Your task to perform on an android device: Open eBay Image 0: 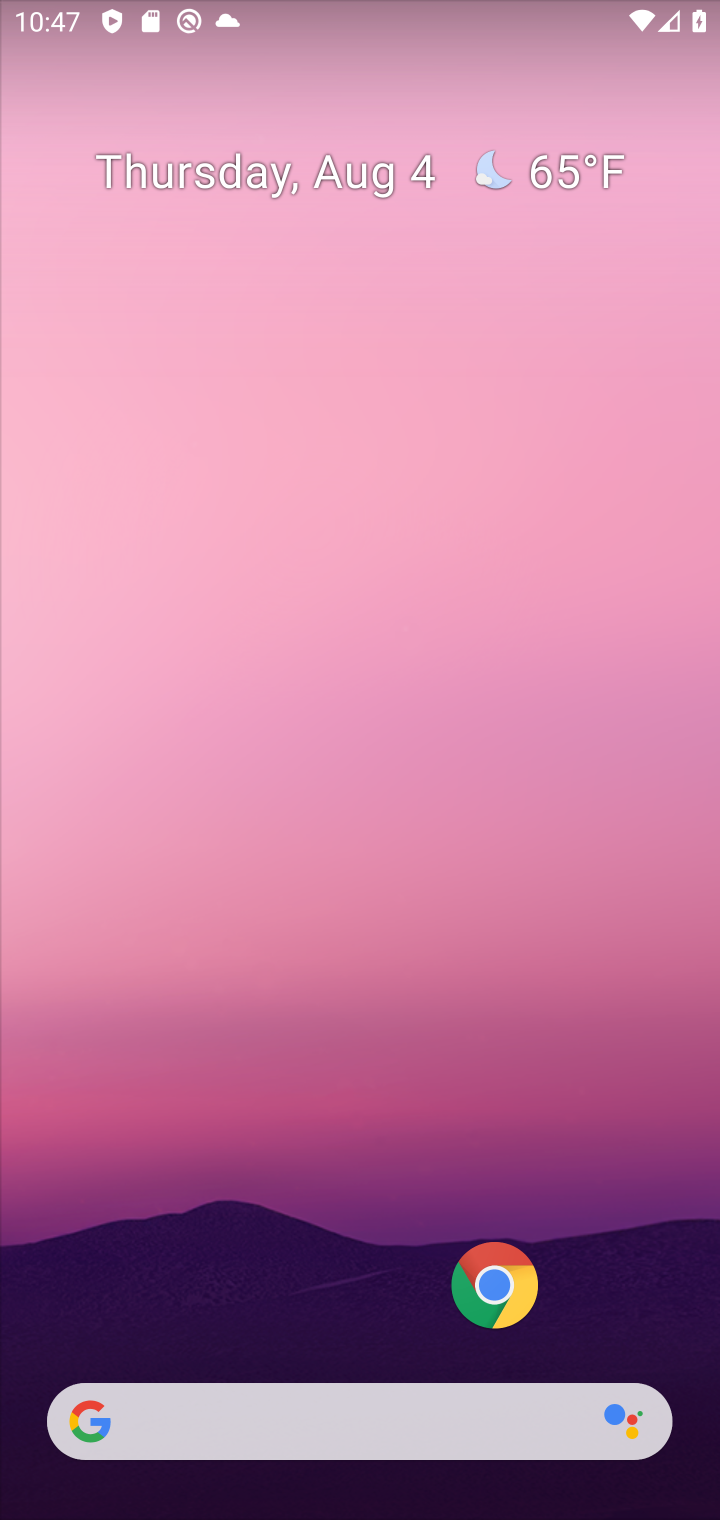
Step 0: drag from (387, 1314) to (431, 32)
Your task to perform on an android device: Open eBay Image 1: 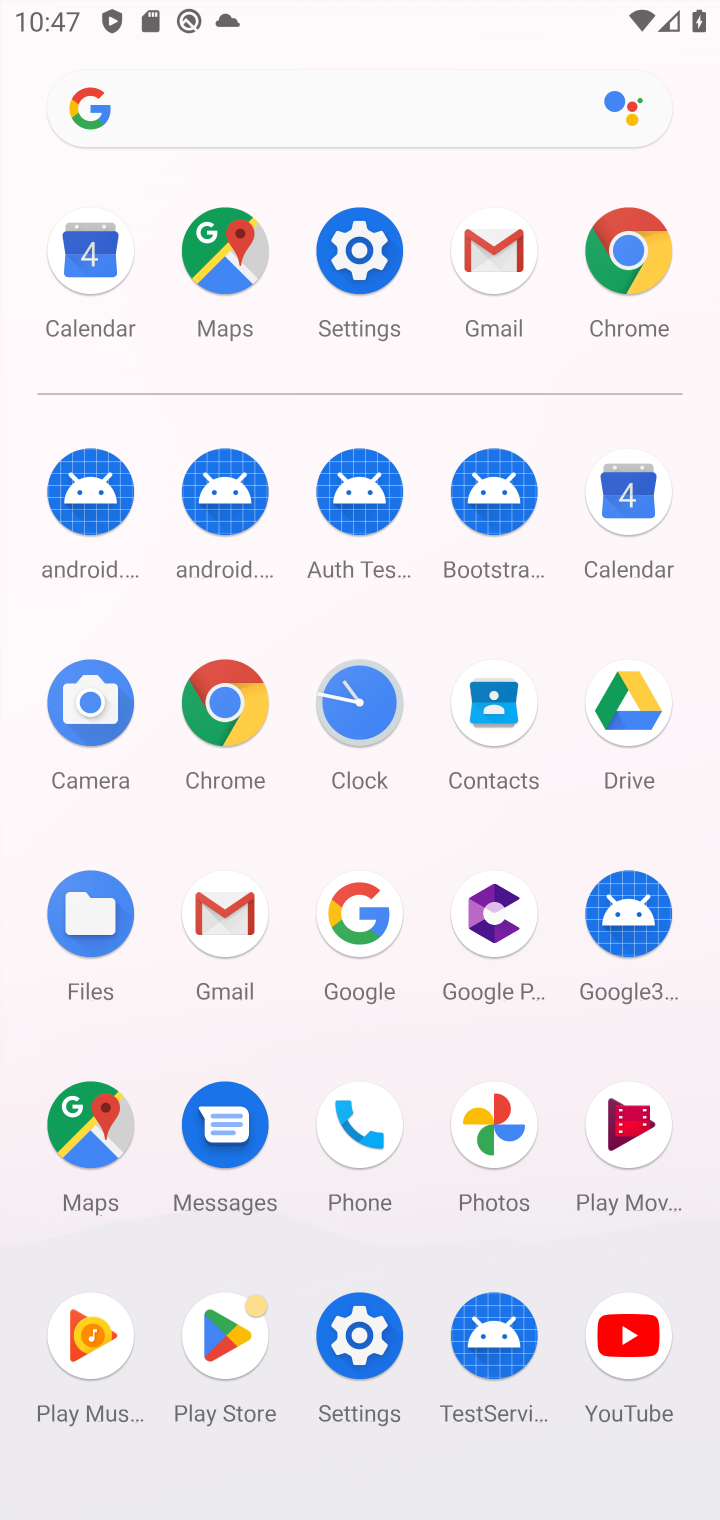
Step 1: click (632, 238)
Your task to perform on an android device: Open eBay Image 2: 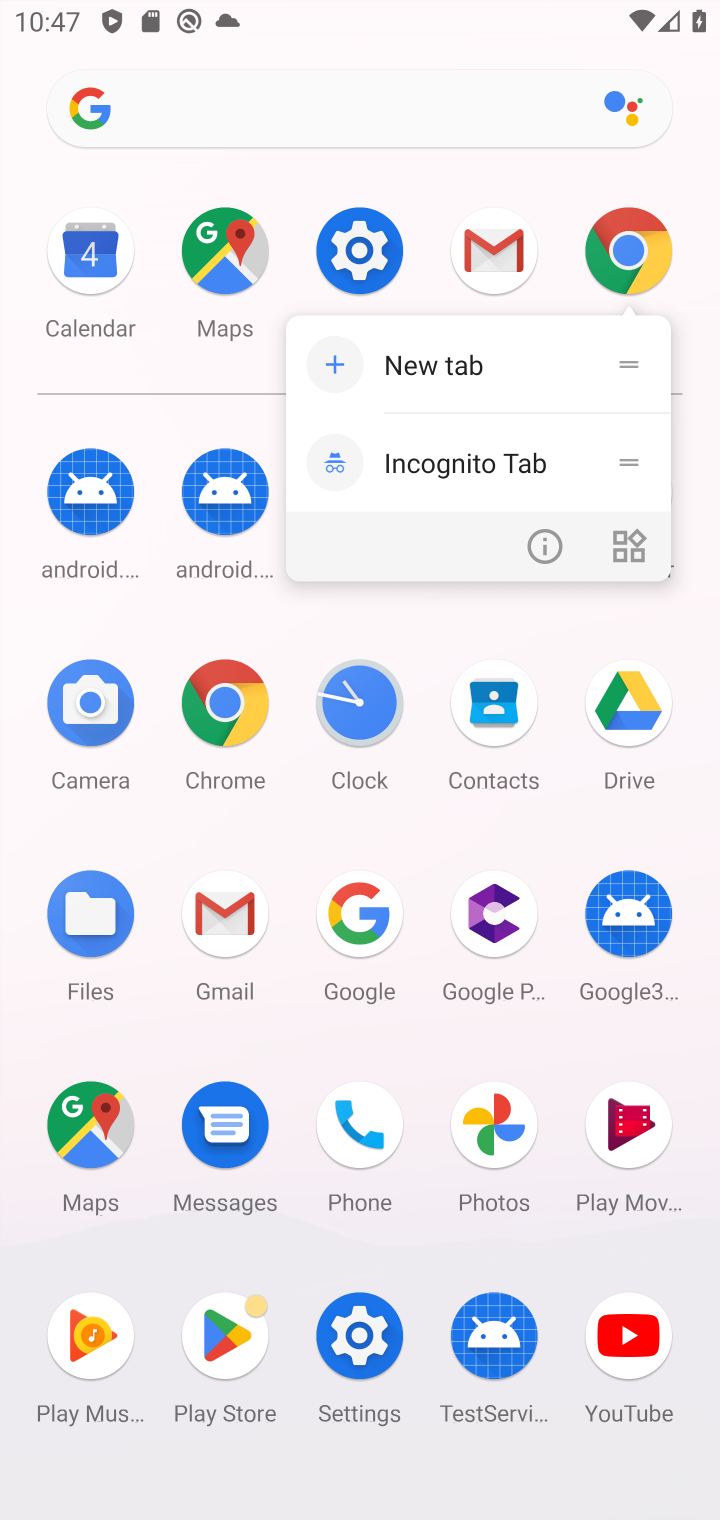
Step 2: click (612, 216)
Your task to perform on an android device: Open eBay Image 3: 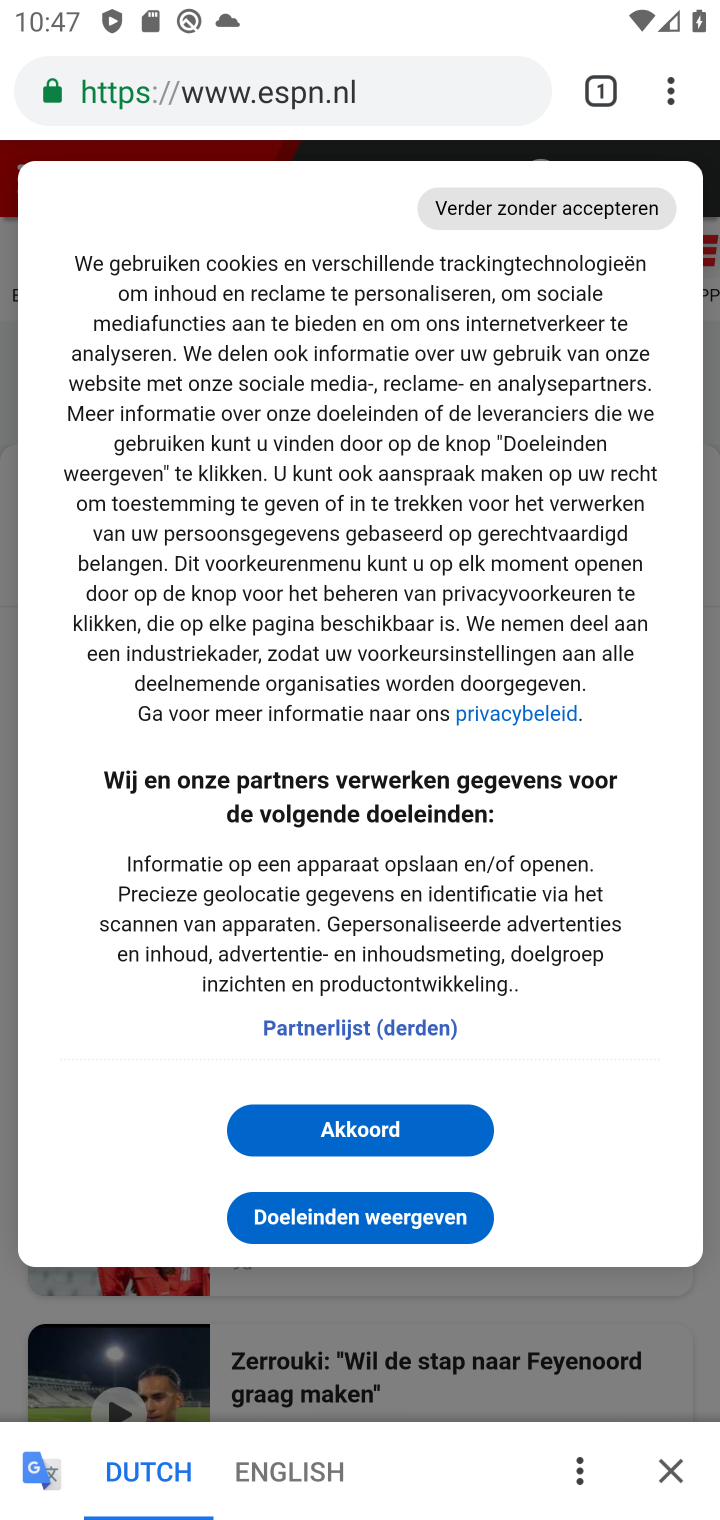
Step 3: click (224, 80)
Your task to perform on an android device: Open eBay Image 4: 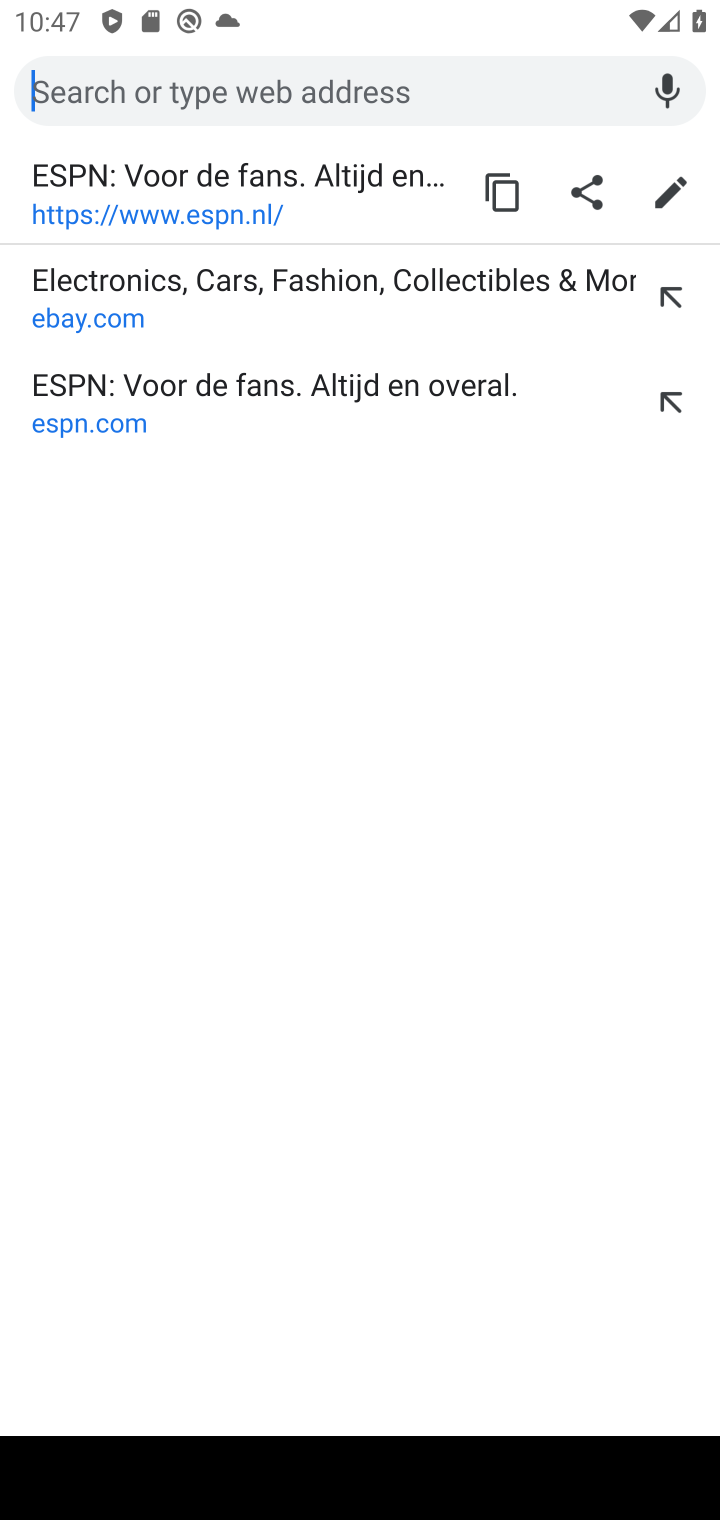
Step 4: type " eBay"
Your task to perform on an android device: Open eBay Image 5: 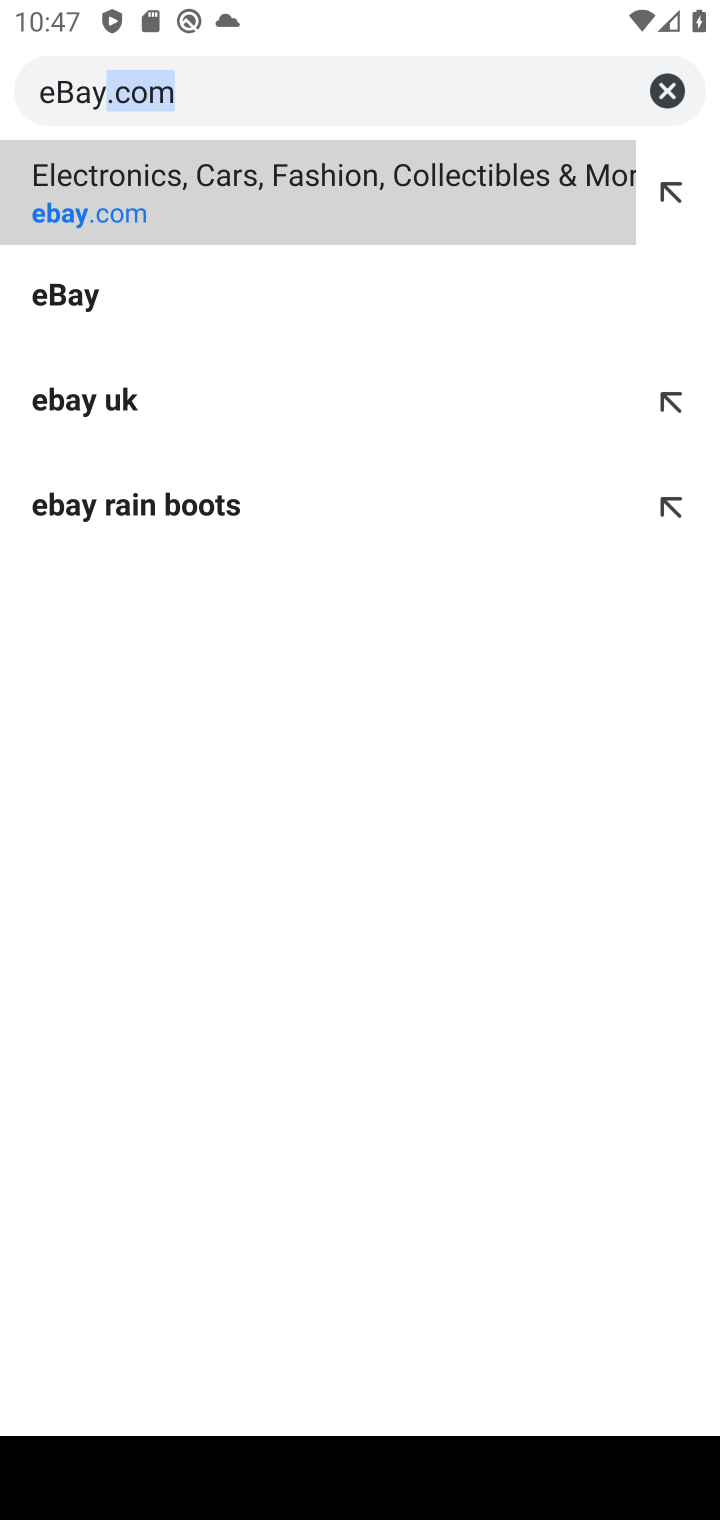
Step 5: click (98, 212)
Your task to perform on an android device: Open eBay Image 6: 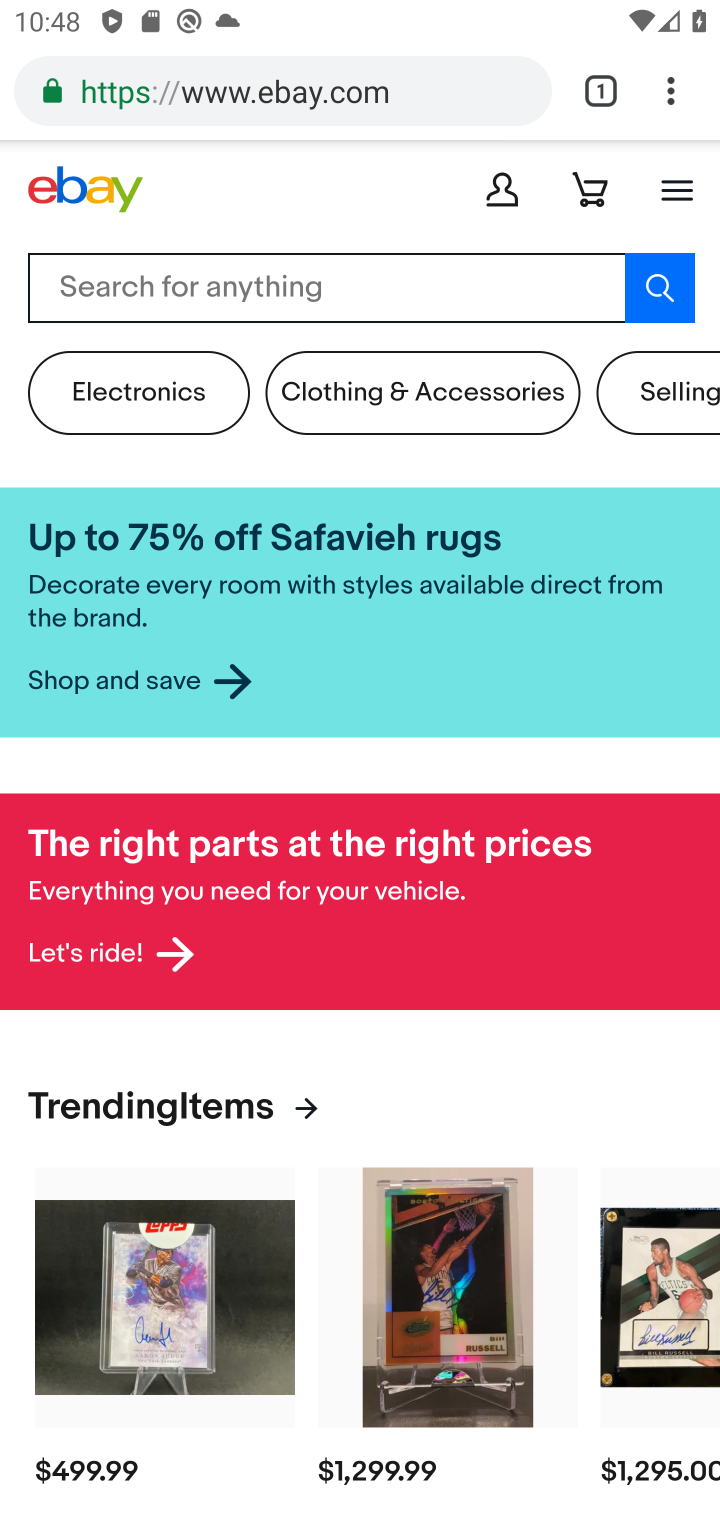
Step 6: task complete